Your task to perform on an android device: empty trash in google photos Image 0: 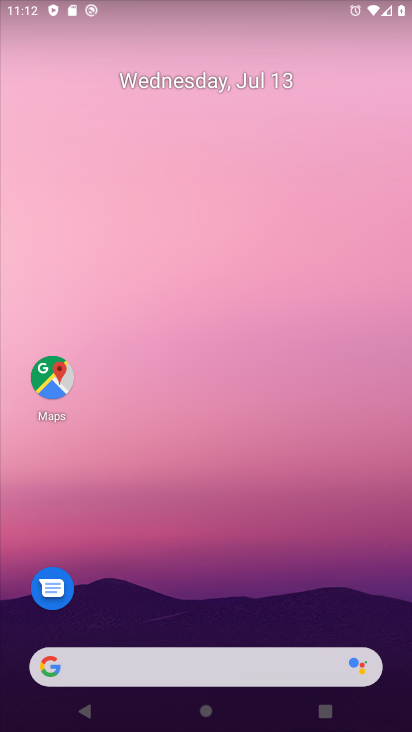
Step 0: drag from (249, 688) to (332, 1)
Your task to perform on an android device: empty trash in google photos Image 1: 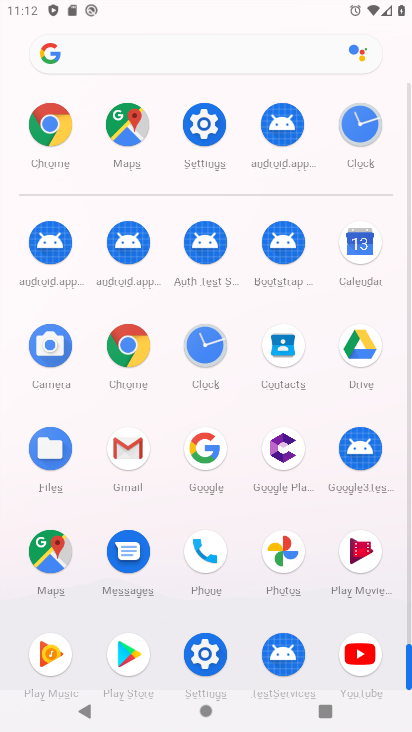
Step 1: click (271, 549)
Your task to perform on an android device: empty trash in google photos Image 2: 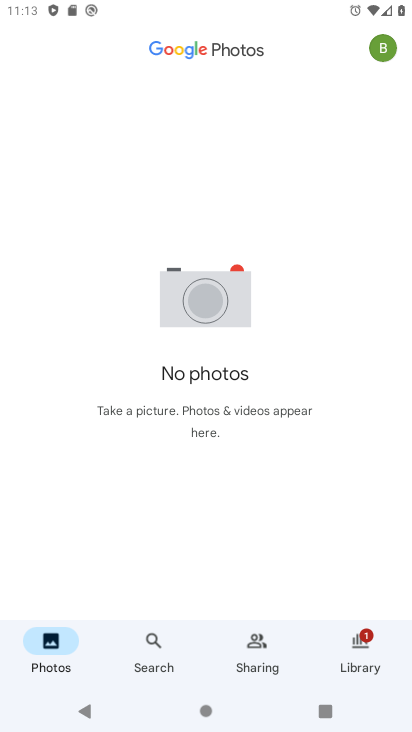
Step 2: click (381, 45)
Your task to perform on an android device: empty trash in google photos Image 3: 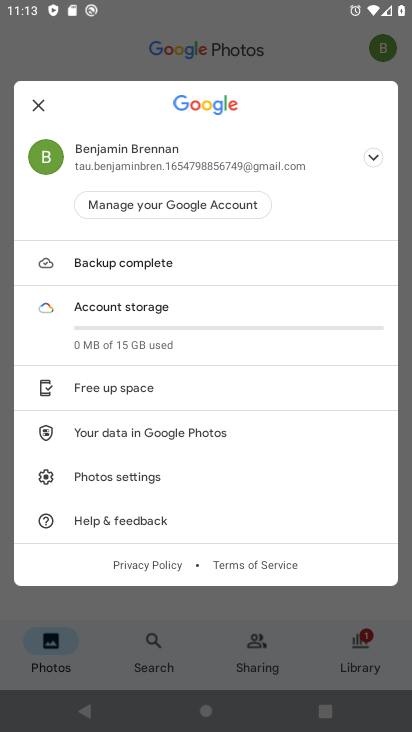
Step 3: click (281, 616)
Your task to perform on an android device: empty trash in google photos Image 4: 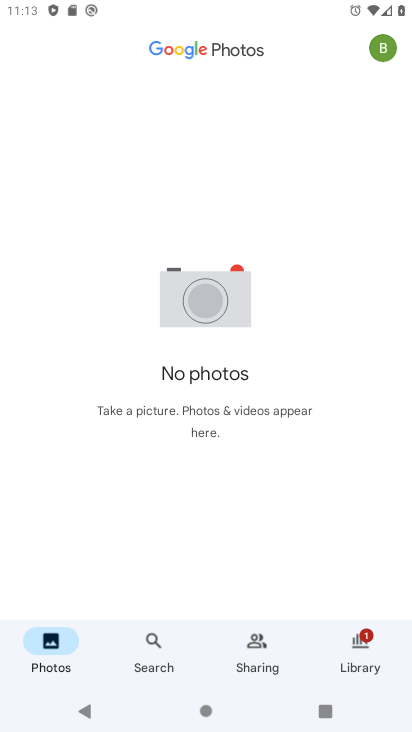
Step 4: click (370, 644)
Your task to perform on an android device: empty trash in google photos Image 5: 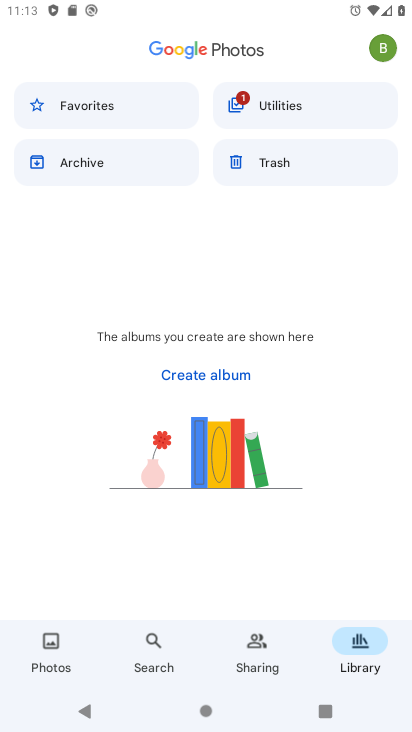
Step 5: click (303, 164)
Your task to perform on an android device: empty trash in google photos Image 6: 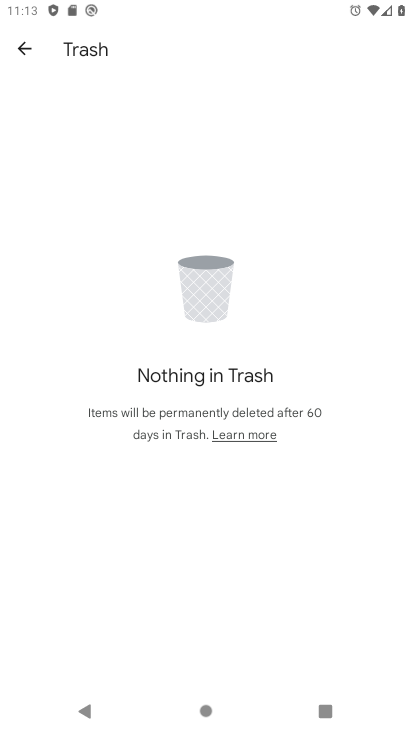
Step 6: task complete